Your task to perform on an android device: Open Google Chrome Image 0: 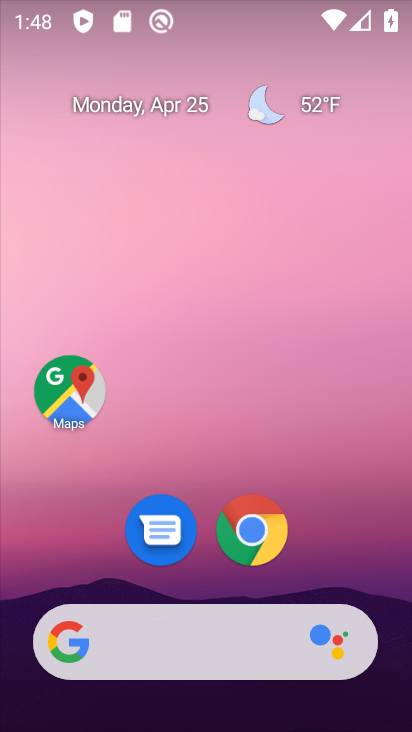
Step 0: drag from (339, 591) to (343, 219)
Your task to perform on an android device: Open Google Chrome Image 1: 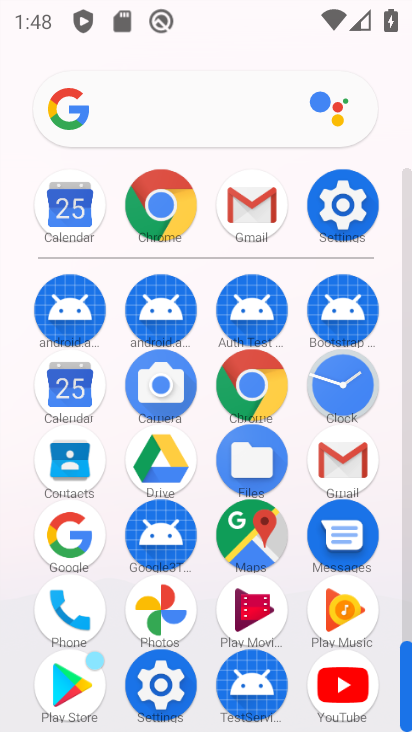
Step 1: click (279, 404)
Your task to perform on an android device: Open Google Chrome Image 2: 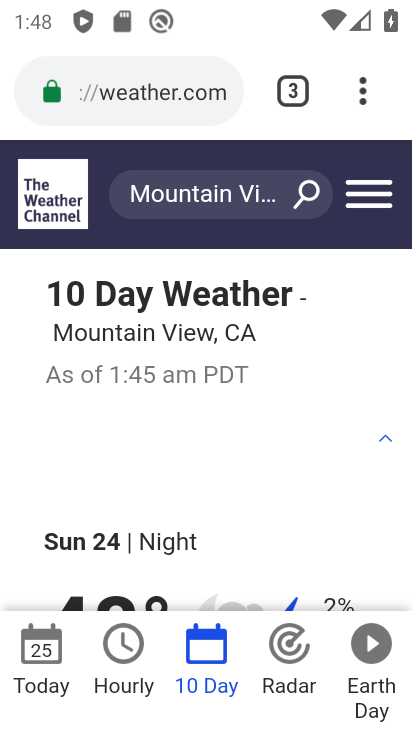
Step 2: task complete